Your task to perform on an android device: set the stopwatch Image 0: 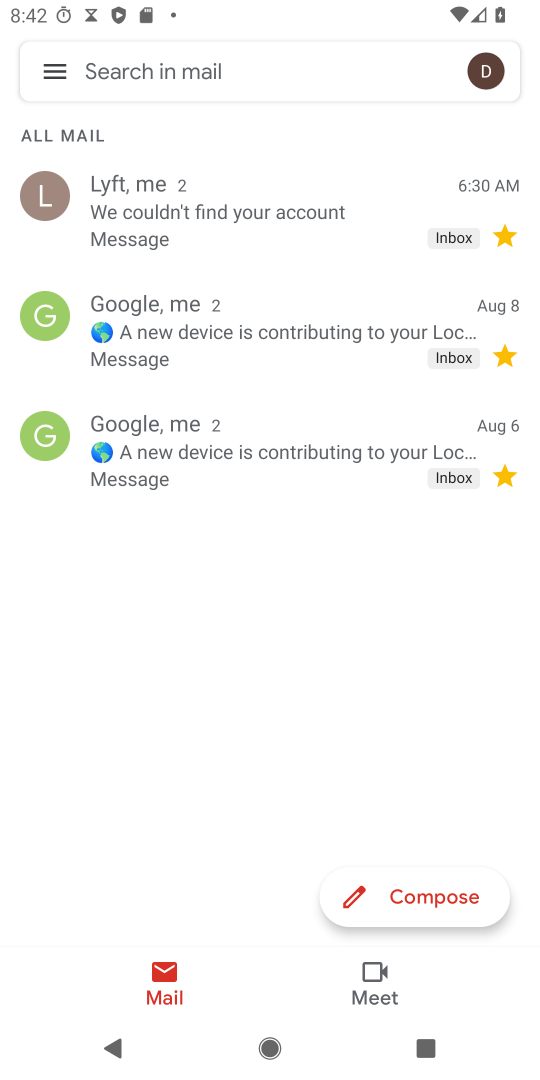
Step 0: press home button
Your task to perform on an android device: set the stopwatch Image 1: 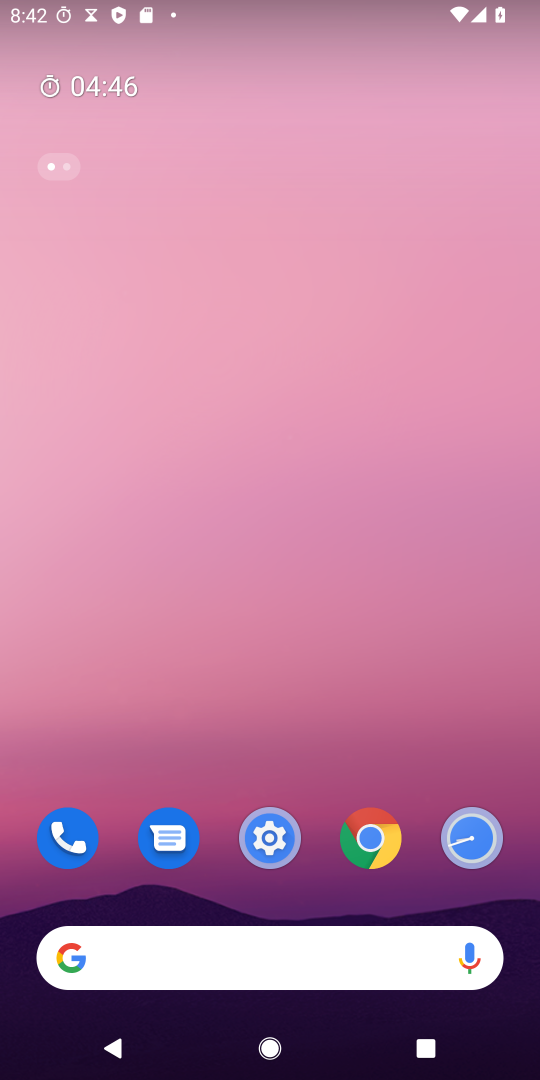
Step 1: drag from (385, 755) to (319, 158)
Your task to perform on an android device: set the stopwatch Image 2: 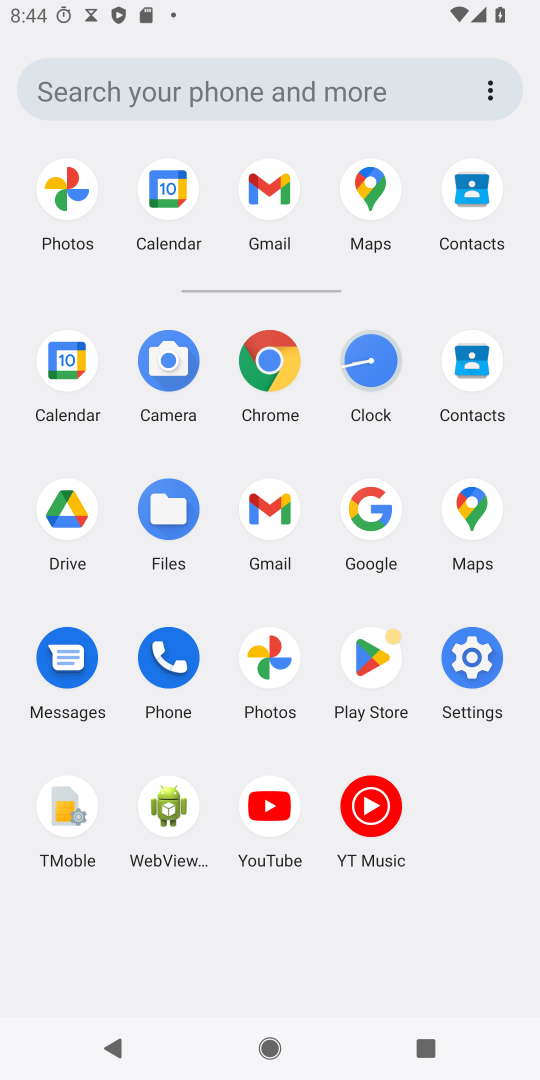
Step 2: click (348, 359)
Your task to perform on an android device: set the stopwatch Image 3: 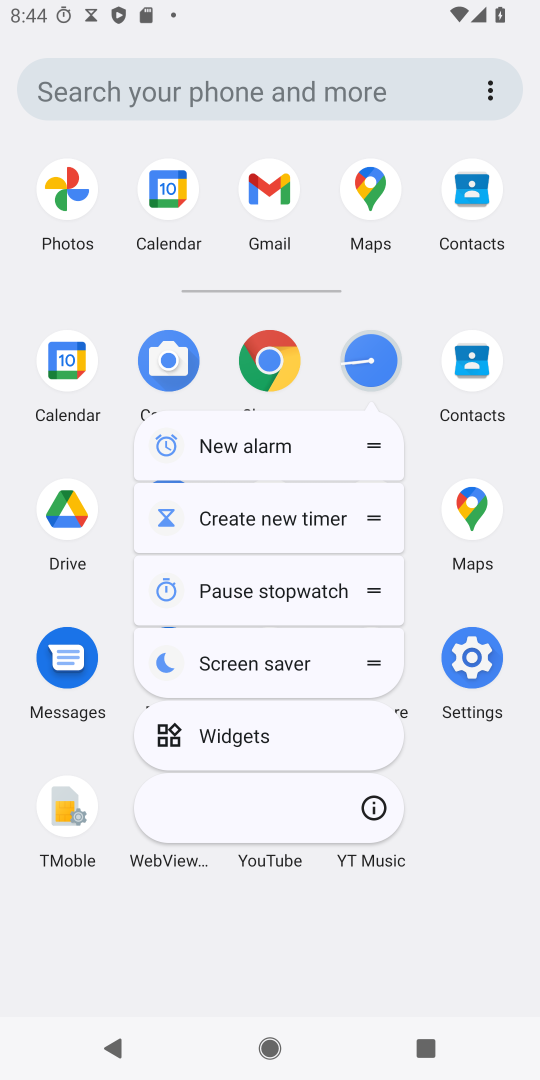
Step 3: click (348, 359)
Your task to perform on an android device: set the stopwatch Image 4: 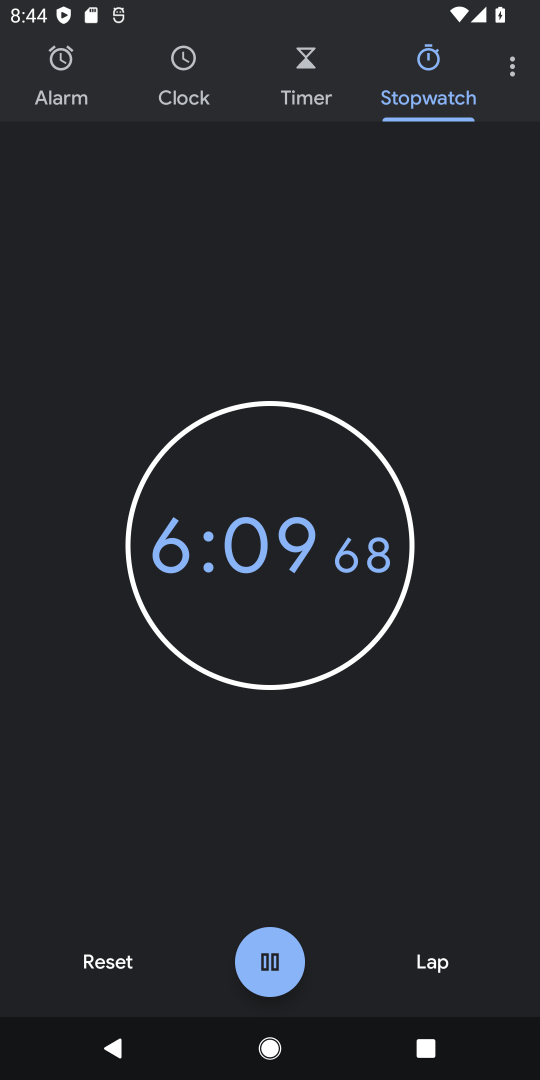
Step 4: task complete